Your task to perform on an android device: turn on priority inbox in the gmail app Image 0: 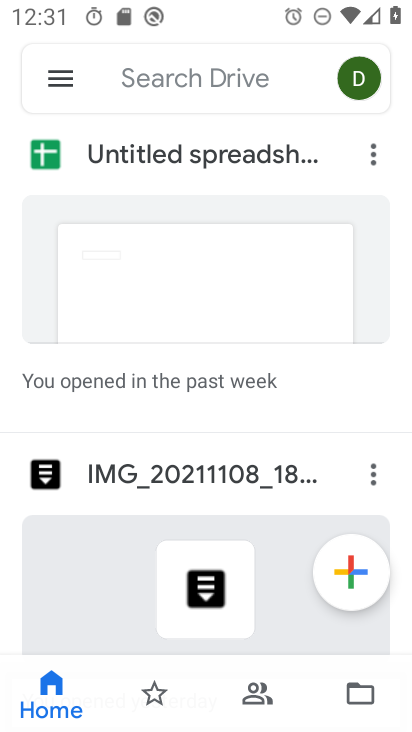
Step 0: drag from (341, 714) to (271, 179)
Your task to perform on an android device: turn on priority inbox in the gmail app Image 1: 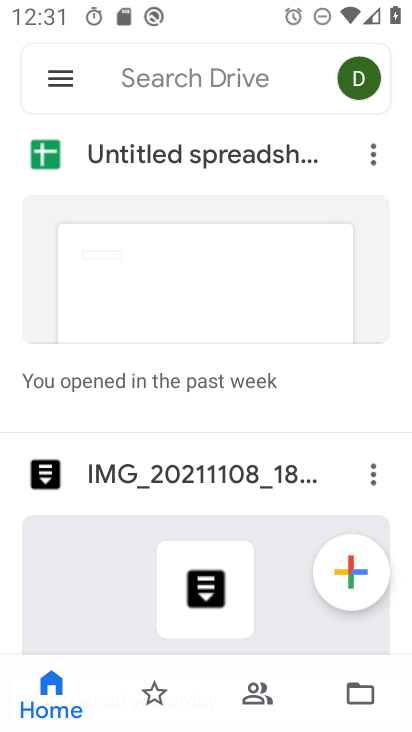
Step 1: press back button
Your task to perform on an android device: turn on priority inbox in the gmail app Image 2: 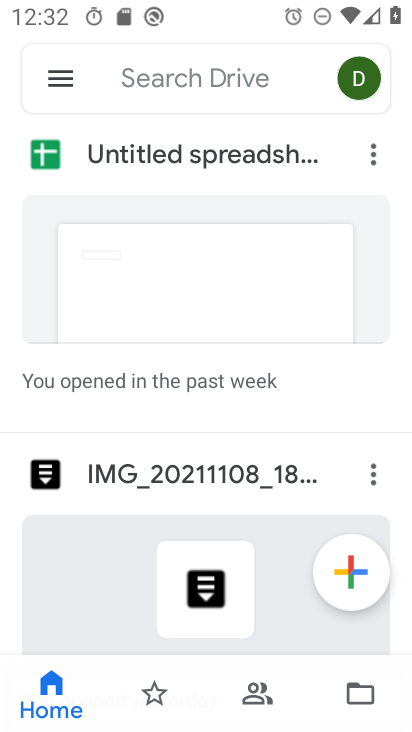
Step 2: press back button
Your task to perform on an android device: turn on priority inbox in the gmail app Image 3: 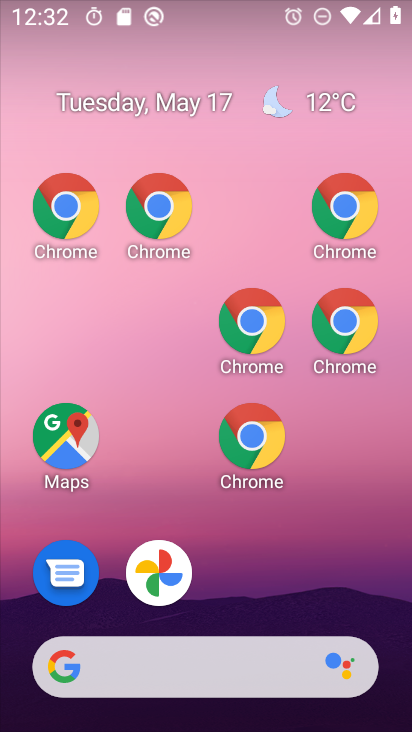
Step 3: drag from (333, 571) to (137, 6)
Your task to perform on an android device: turn on priority inbox in the gmail app Image 4: 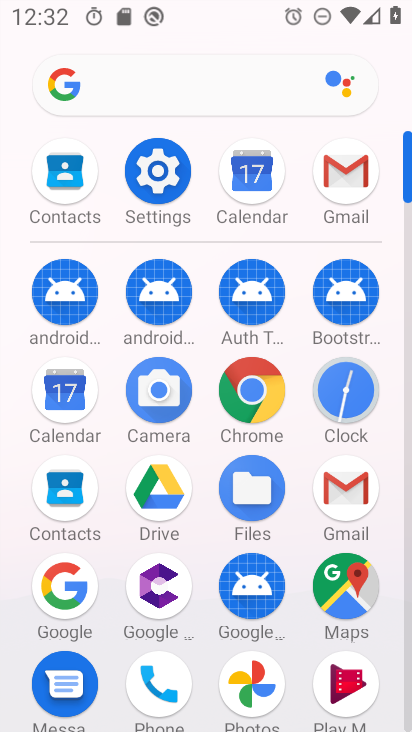
Step 4: click (340, 505)
Your task to perform on an android device: turn on priority inbox in the gmail app Image 5: 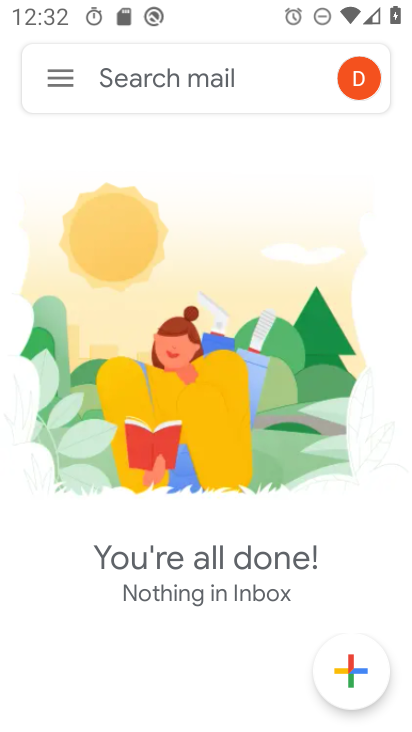
Step 5: click (57, 80)
Your task to perform on an android device: turn on priority inbox in the gmail app Image 6: 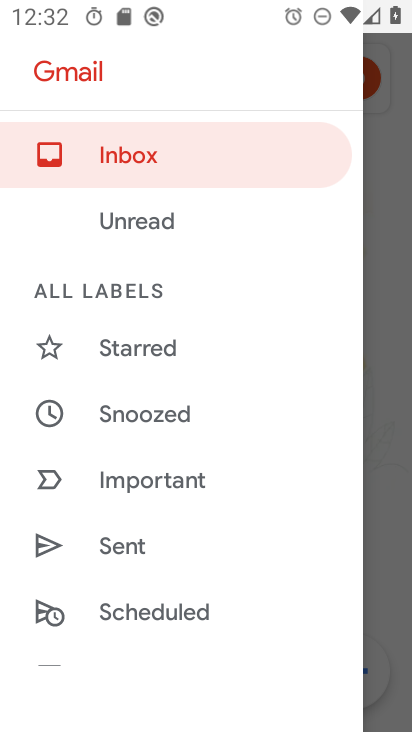
Step 6: drag from (193, 516) to (208, 103)
Your task to perform on an android device: turn on priority inbox in the gmail app Image 7: 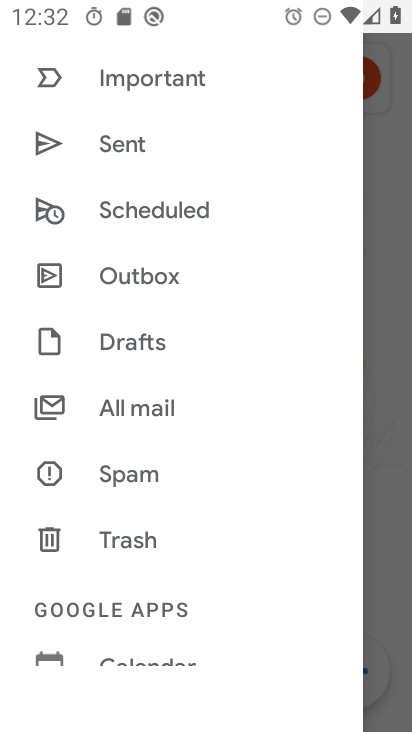
Step 7: drag from (142, 565) to (163, 337)
Your task to perform on an android device: turn on priority inbox in the gmail app Image 8: 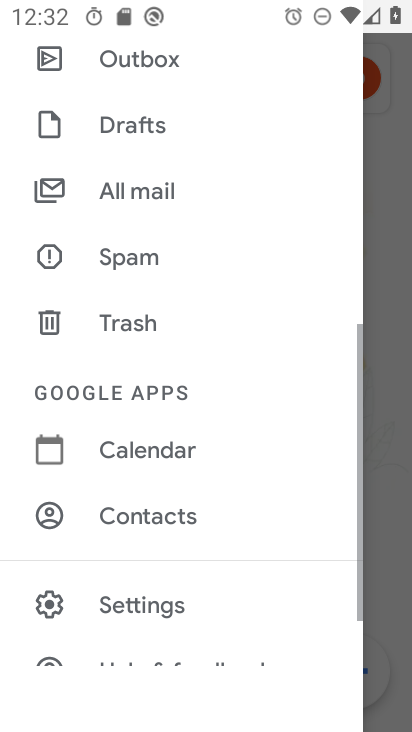
Step 8: drag from (221, 476) to (208, 71)
Your task to perform on an android device: turn on priority inbox in the gmail app Image 9: 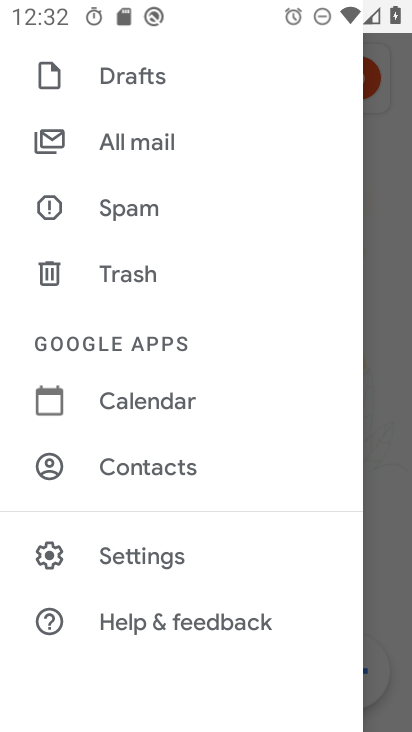
Step 9: click (154, 546)
Your task to perform on an android device: turn on priority inbox in the gmail app Image 10: 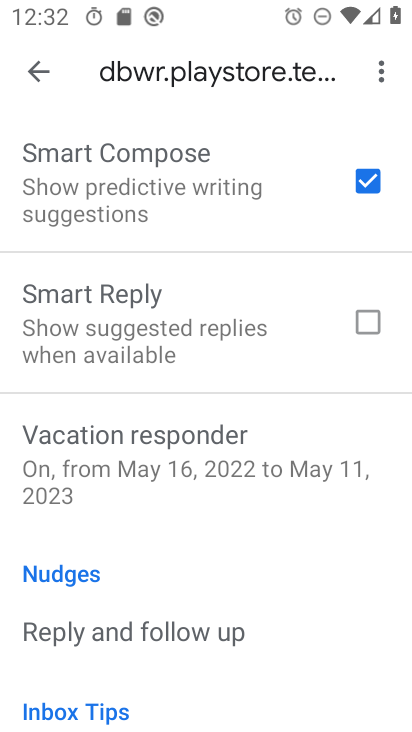
Step 10: drag from (156, 321) to (142, 633)
Your task to perform on an android device: turn on priority inbox in the gmail app Image 11: 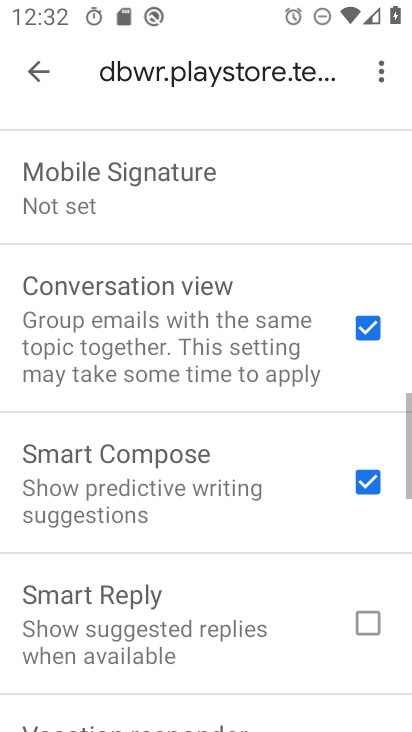
Step 11: drag from (90, 243) to (169, 581)
Your task to perform on an android device: turn on priority inbox in the gmail app Image 12: 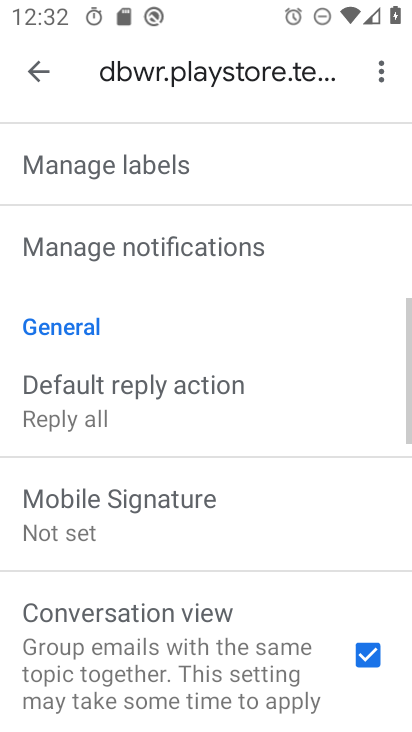
Step 12: drag from (189, 285) to (231, 620)
Your task to perform on an android device: turn on priority inbox in the gmail app Image 13: 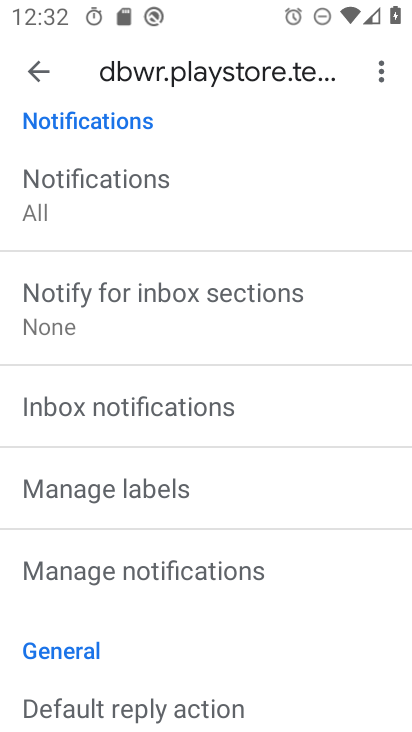
Step 13: drag from (209, 142) to (151, 600)
Your task to perform on an android device: turn on priority inbox in the gmail app Image 14: 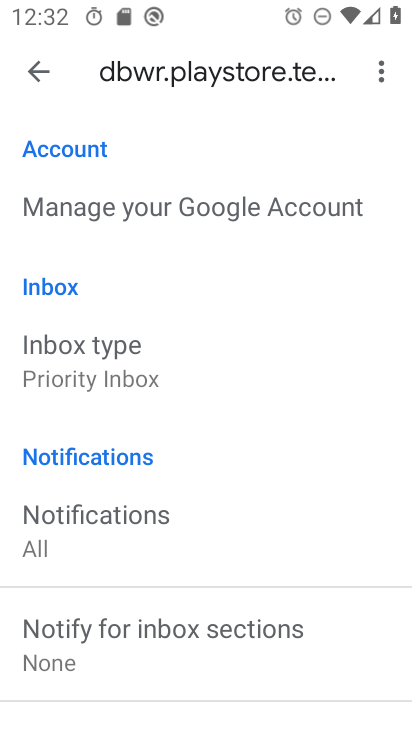
Step 14: click (69, 361)
Your task to perform on an android device: turn on priority inbox in the gmail app Image 15: 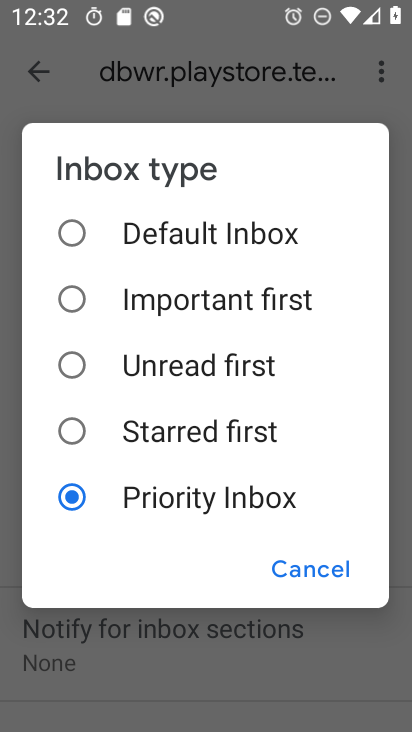
Step 15: click (299, 561)
Your task to perform on an android device: turn on priority inbox in the gmail app Image 16: 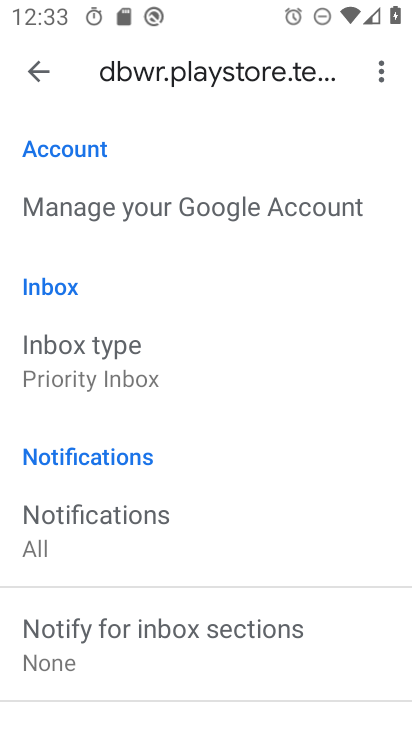
Step 16: task complete